Your task to perform on an android device: turn on improve location accuracy Image 0: 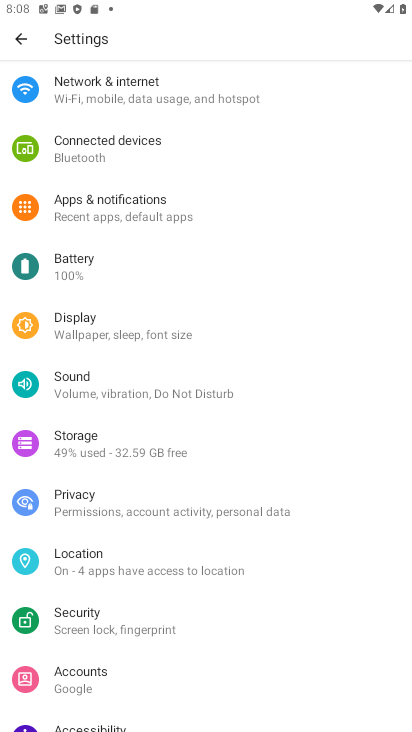
Step 0: press home button
Your task to perform on an android device: turn on improve location accuracy Image 1: 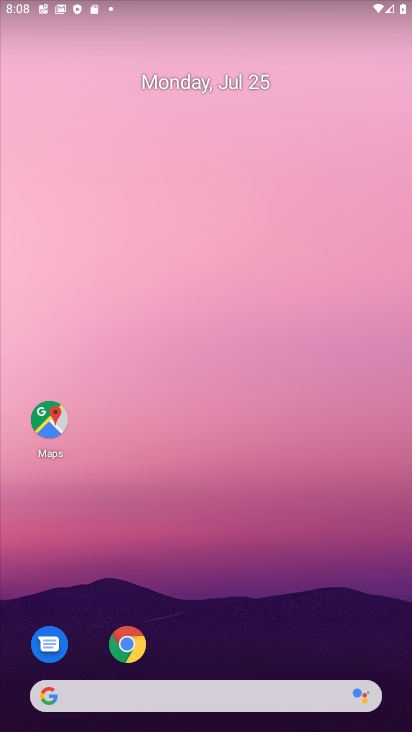
Step 1: drag from (321, 557) to (288, 160)
Your task to perform on an android device: turn on improve location accuracy Image 2: 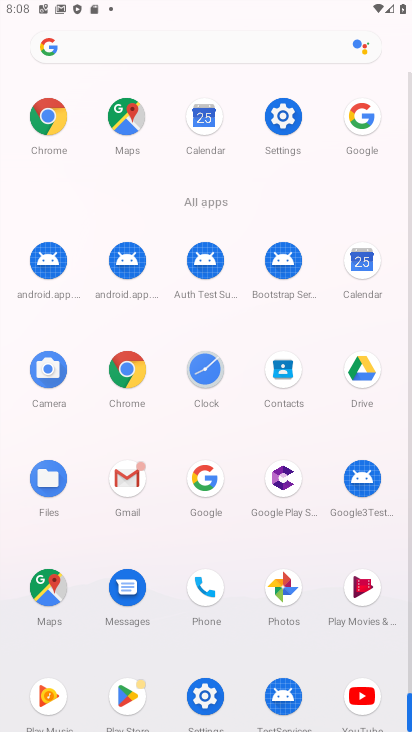
Step 2: click (291, 124)
Your task to perform on an android device: turn on improve location accuracy Image 3: 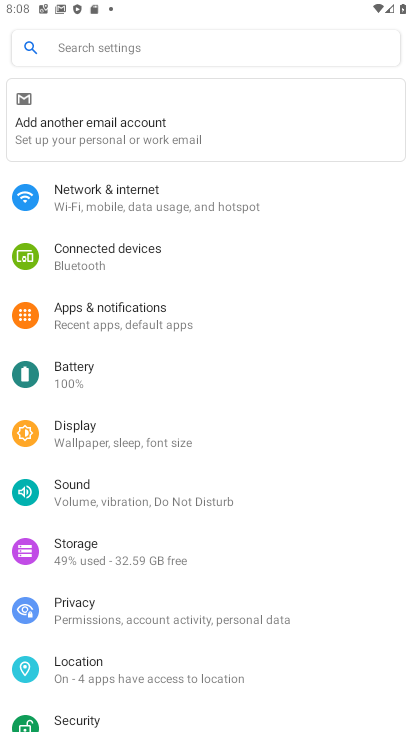
Step 3: drag from (141, 637) to (136, 292)
Your task to perform on an android device: turn on improve location accuracy Image 4: 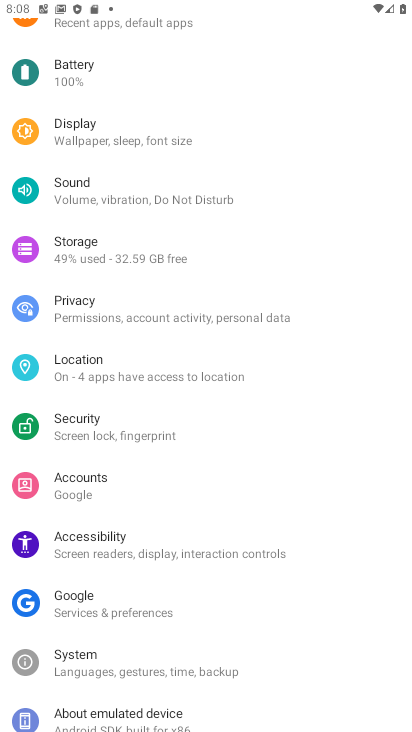
Step 4: click (128, 364)
Your task to perform on an android device: turn on improve location accuracy Image 5: 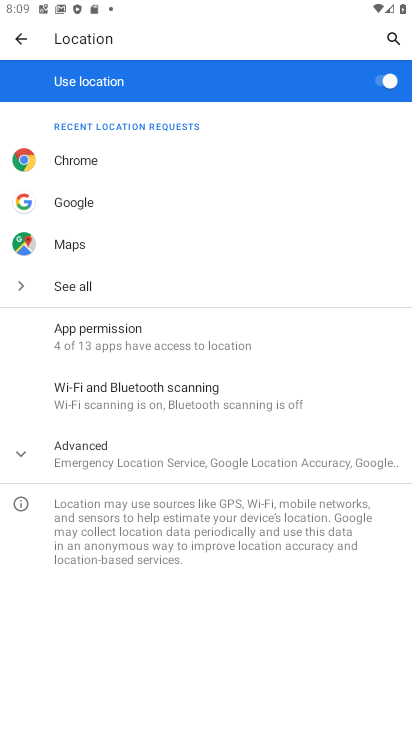
Step 5: click (218, 465)
Your task to perform on an android device: turn on improve location accuracy Image 6: 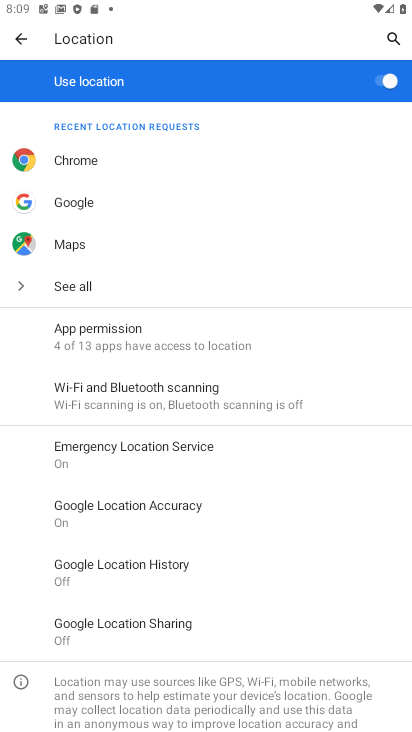
Step 6: click (184, 521)
Your task to perform on an android device: turn on improve location accuracy Image 7: 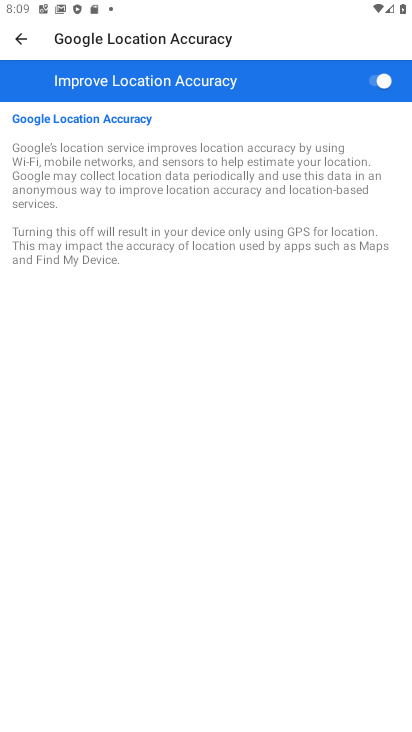
Step 7: task complete